Your task to perform on an android device: turn on data saver in the chrome app Image 0: 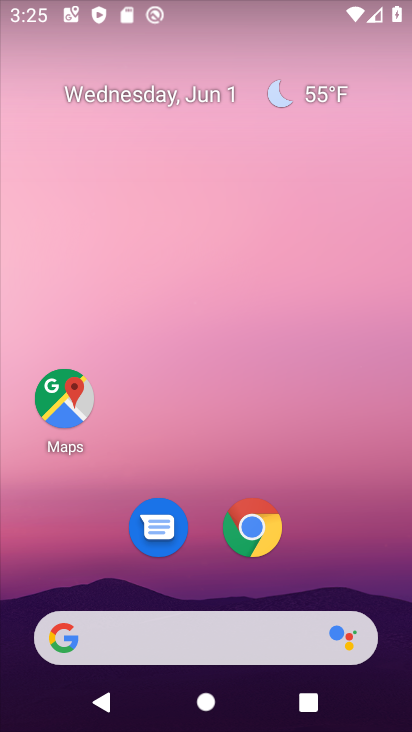
Step 0: press home button
Your task to perform on an android device: turn on data saver in the chrome app Image 1: 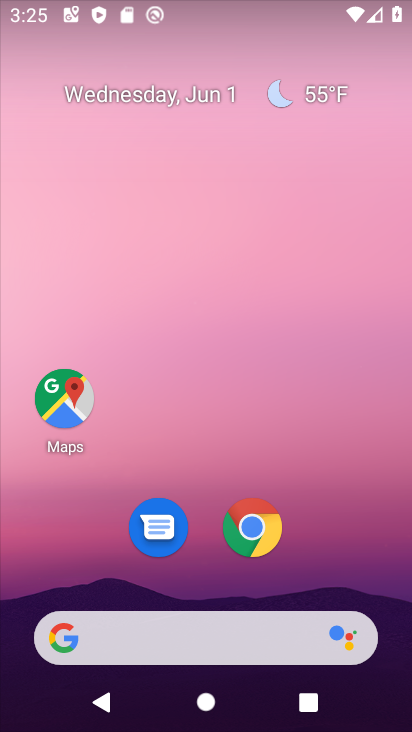
Step 1: click (209, 541)
Your task to perform on an android device: turn on data saver in the chrome app Image 2: 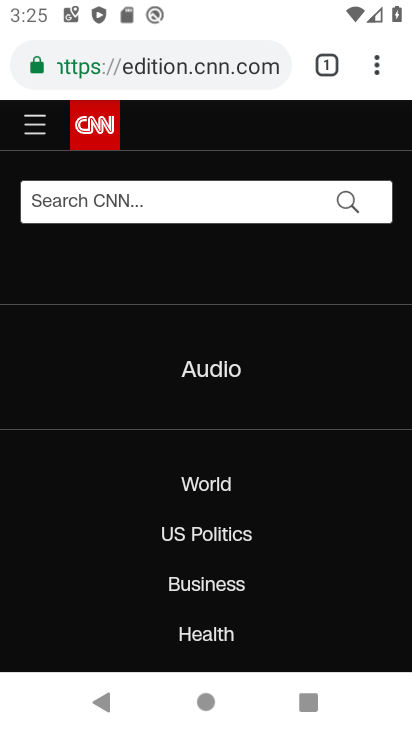
Step 2: drag from (378, 58) to (227, 571)
Your task to perform on an android device: turn on data saver in the chrome app Image 3: 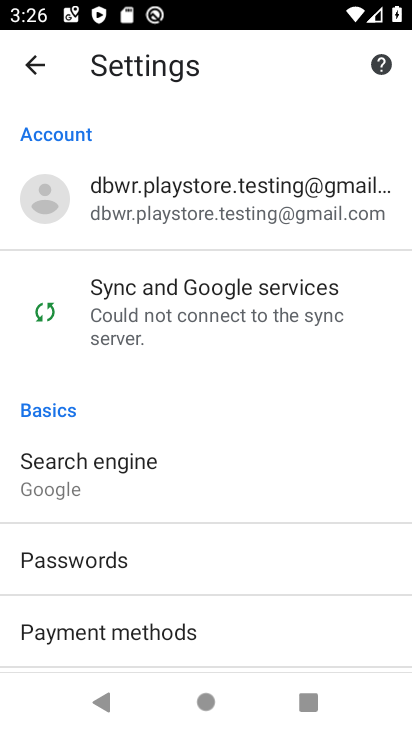
Step 3: drag from (338, 619) to (364, 267)
Your task to perform on an android device: turn on data saver in the chrome app Image 4: 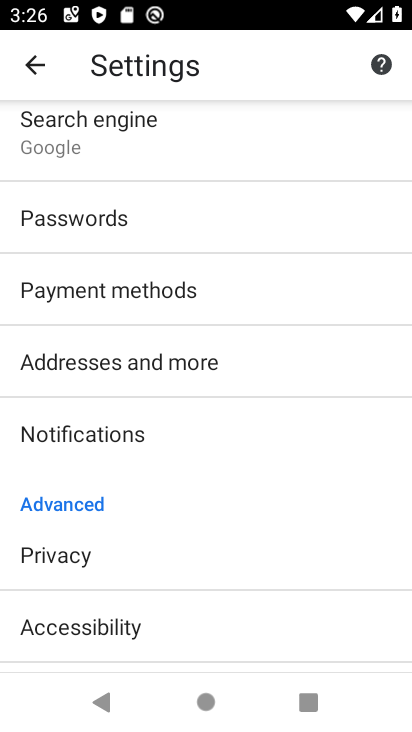
Step 4: drag from (337, 497) to (363, 215)
Your task to perform on an android device: turn on data saver in the chrome app Image 5: 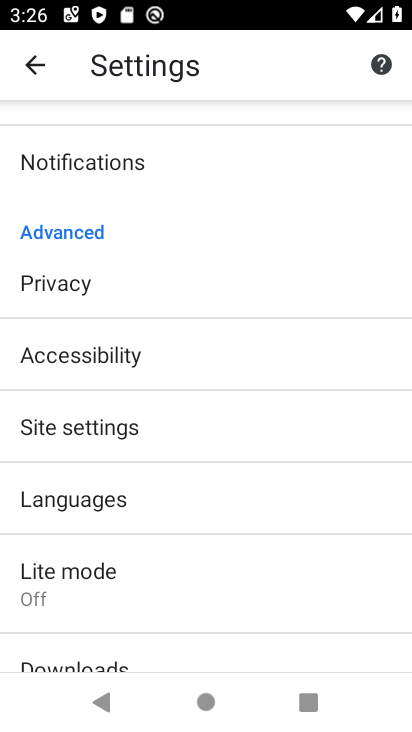
Step 5: click (93, 561)
Your task to perform on an android device: turn on data saver in the chrome app Image 6: 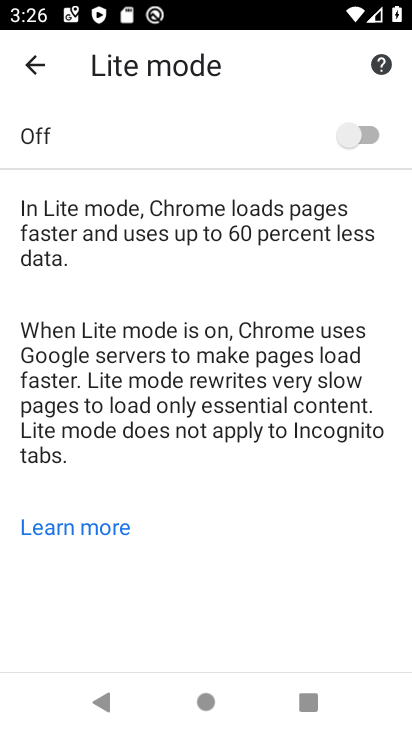
Step 6: click (290, 141)
Your task to perform on an android device: turn on data saver in the chrome app Image 7: 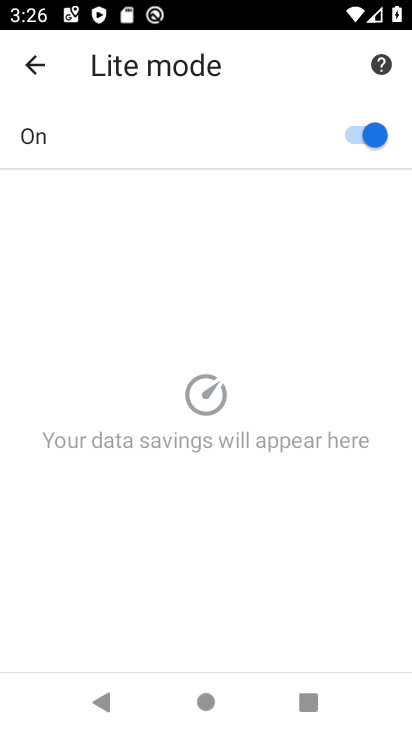
Step 7: task complete